Your task to perform on an android device: When is my next appointment? Image 0: 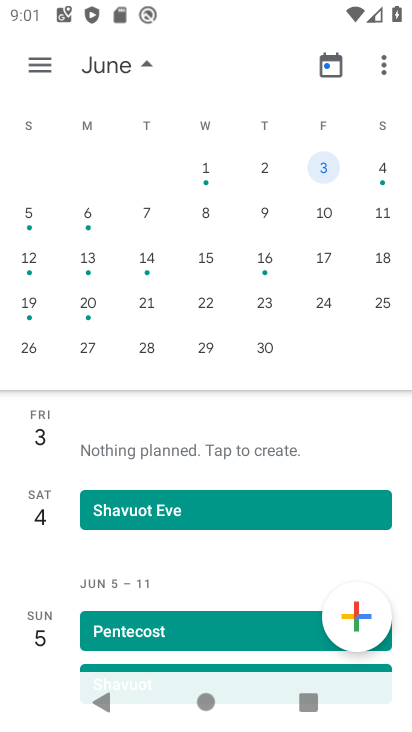
Step 0: click (30, 64)
Your task to perform on an android device: When is my next appointment? Image 1: 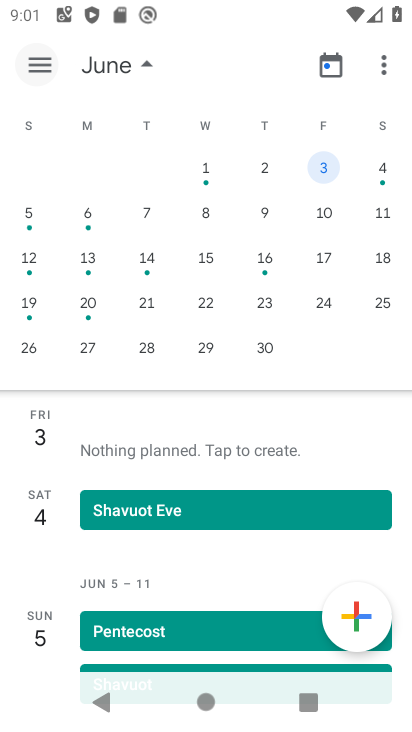
Step 1: click (30, 64)
Your task to perform on an android device: When is my next appointment? Image 2: 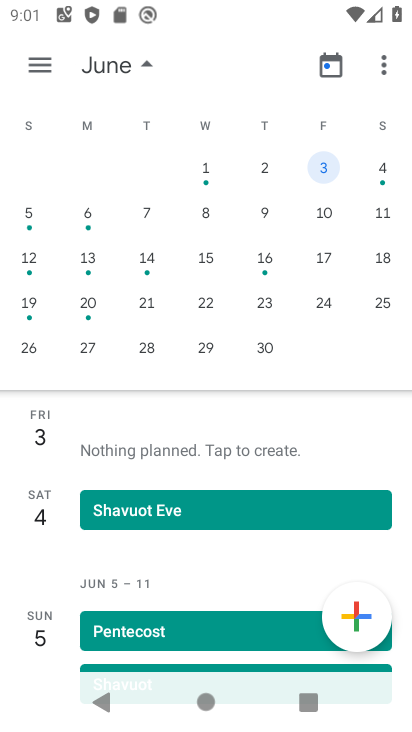
Step 2: click (30, 64)
Your task to perform on an android device: When is my next appointment? Image 3: 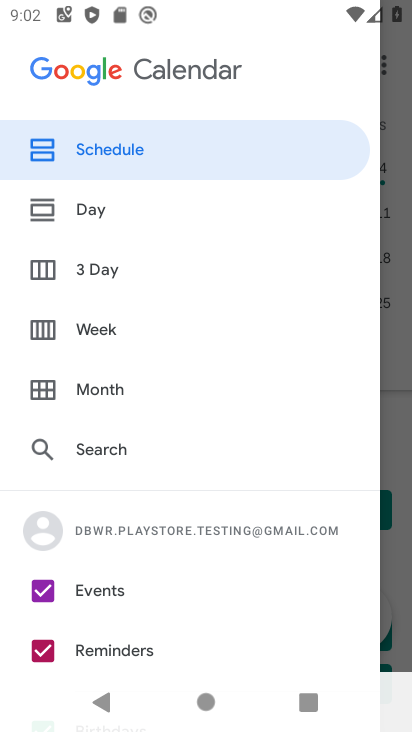
Step 3: click (128, 161)
Your task to perform on an android device: When is my next appointment? Image 4: 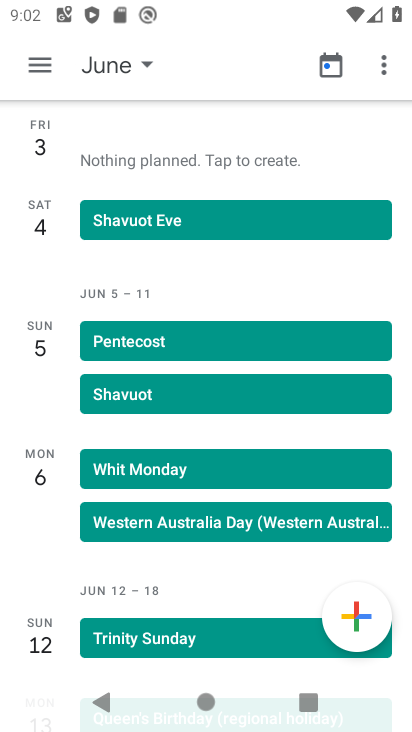
Step 4: task complete